Your task to perform on an android device: Go to Google Image 0: 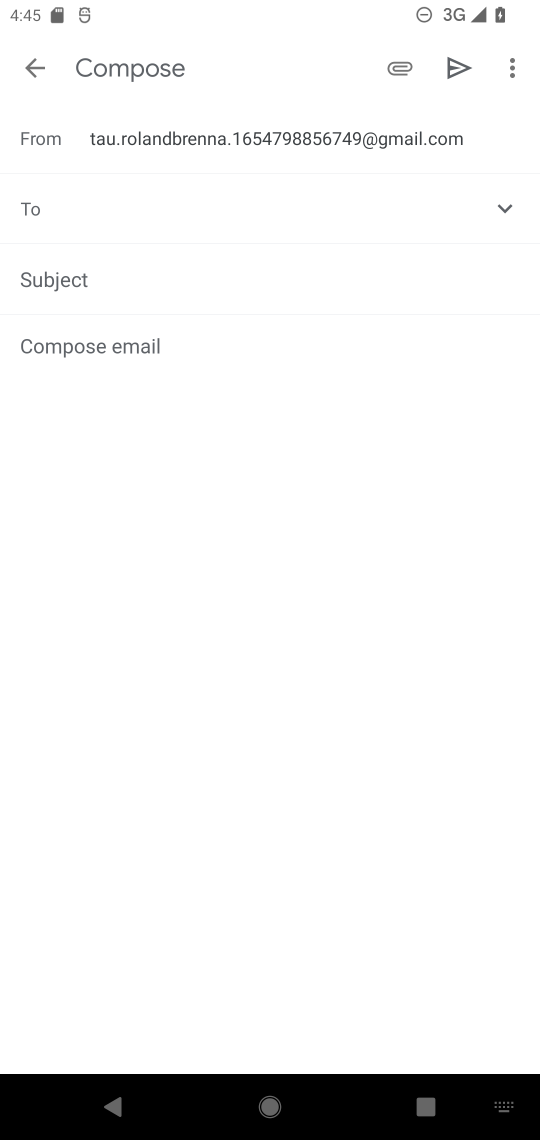
Step 0: press home button
Your task to perform on an android device: Go to Google Image 1: 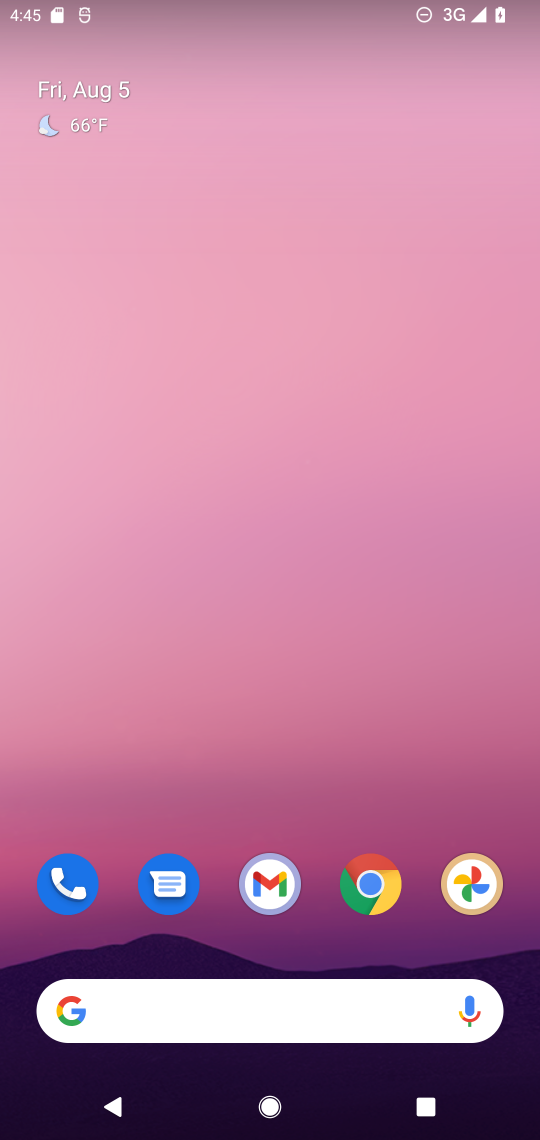
Step 1: drag from (438, 943) to (253, 25)
Your task to perform on an android device: Go to Google Image 2: 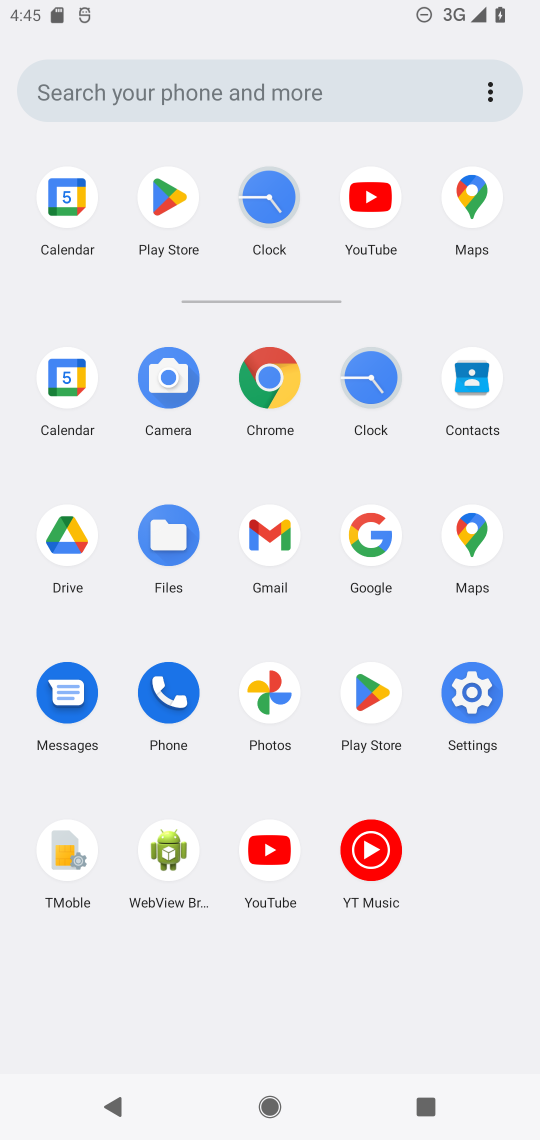
Step 2: click (366, 573)
Your task to perform on an android device: Go to Google Image 3: 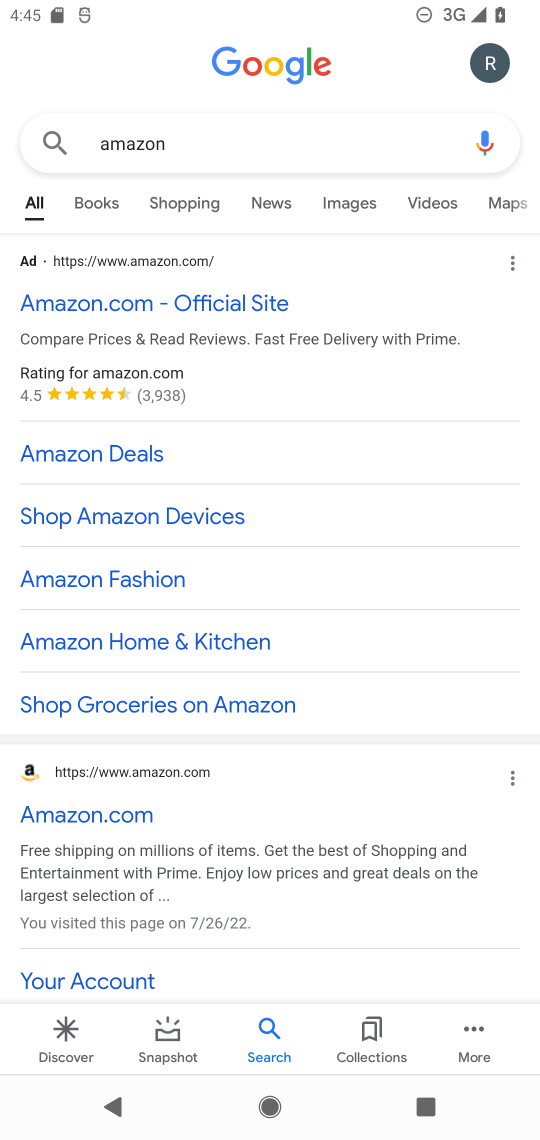
Step 3: task complete